Your task to perform on an android device: toggle translation in the chrome app Image 0: 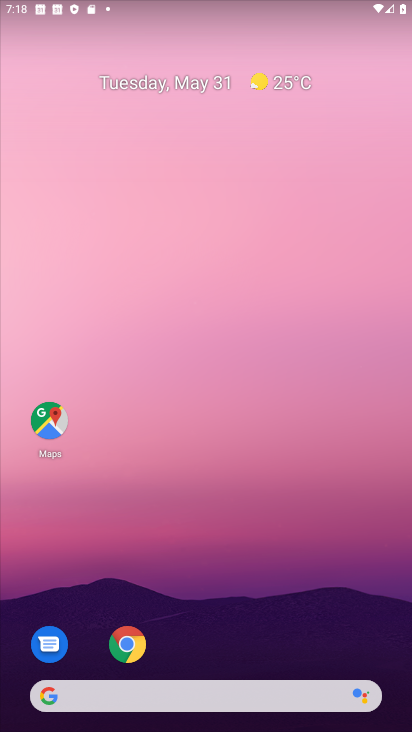
Step 0: drag from (281, 710) to (301, 237)
Your task to perform on an android device: toggle translation in the chrome app Image 1: 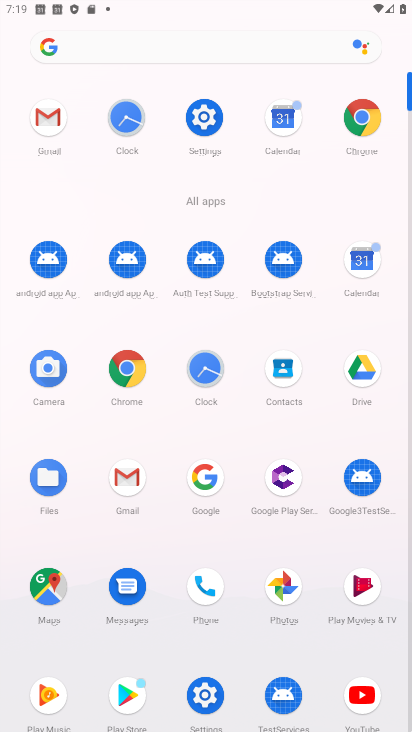
Step 1: click (134, 368)
Your task to perform on an android device: toggle translation in the chrome app Image 2: 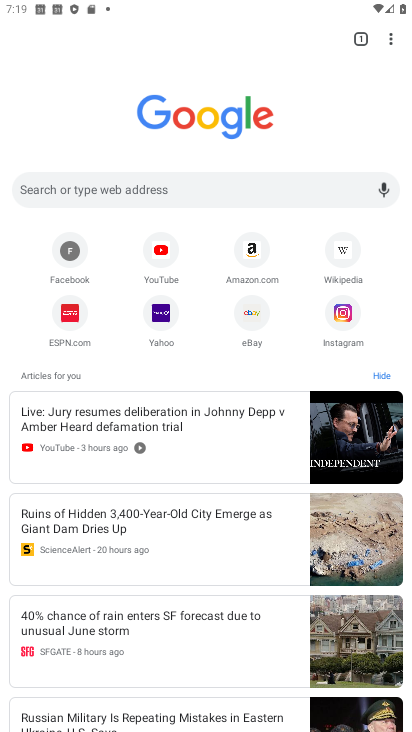
Step 2: click (390, 43)
Your task to perform on an android device: toggle translation in the chrome app Image 3: 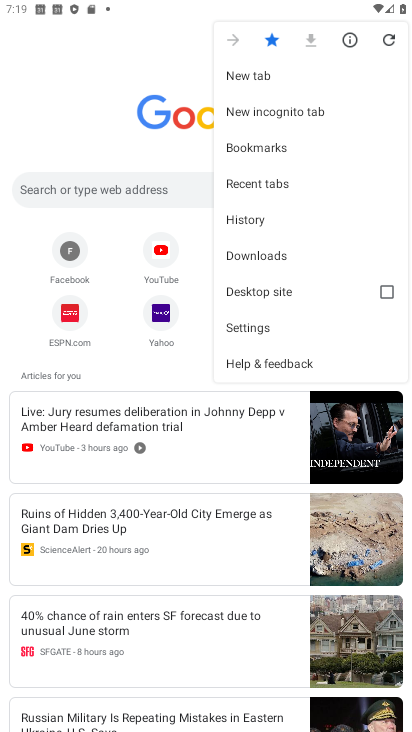
Step 3: click (242, 324)
Your task to perform on an android device: toggle translation in the chrome app Image 4: 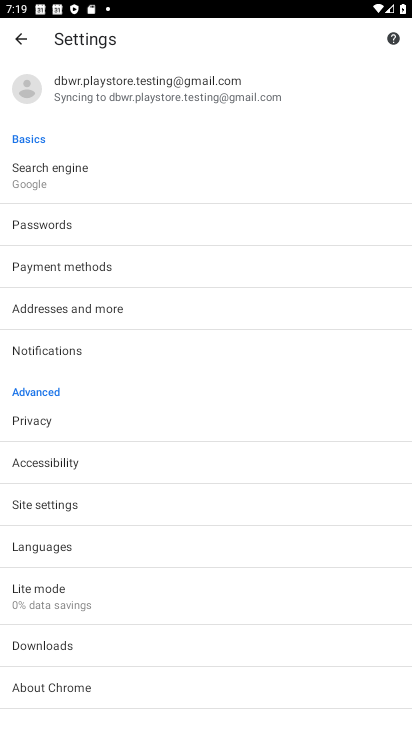
Step 4: click (35, 547)
Your task to perform on an android device: toggle translation in the chrome app Image 5: 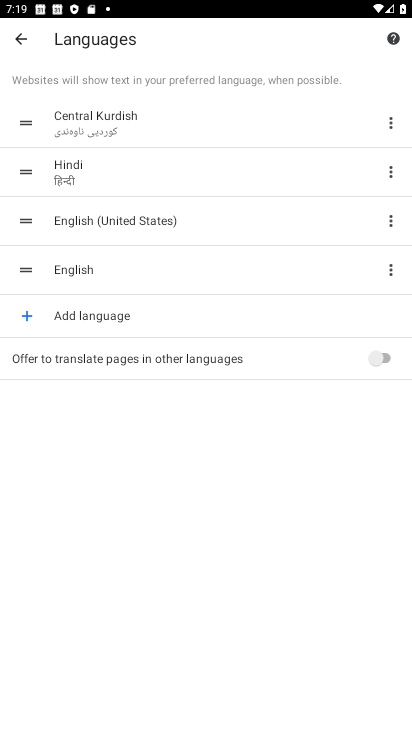
Step 5: click (384, 361)
Your task to perform on an android device: toggle translation in the chrome app Image 6: 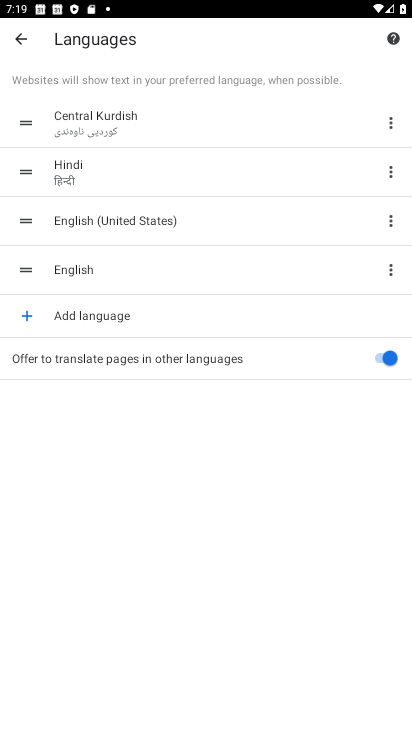
Step 6: task complete